Your task to perform on an android device: When is my next appointment? Image 0: 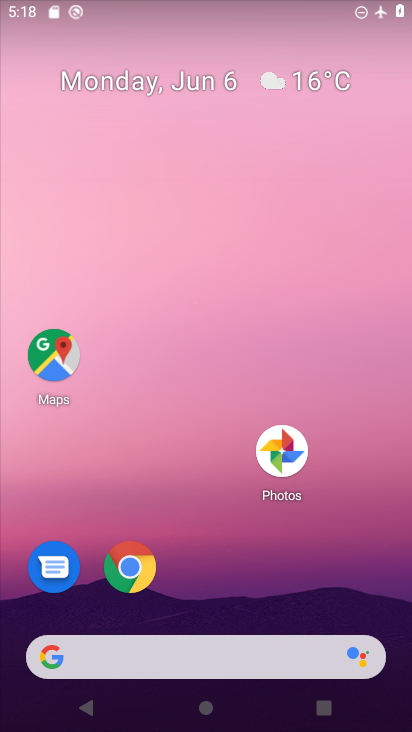
Step 0: click (224, 104)
Your task to perform on an android device: When is my next appointment? Image 1: 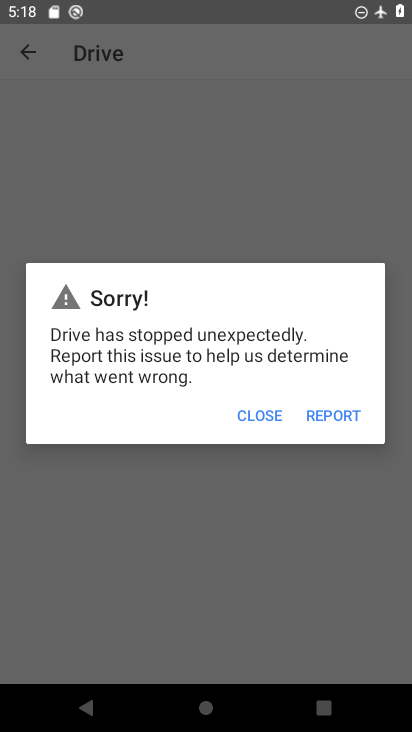
Step 1: click (239, 405)
Your task to perform on an android device: When is my next appointment? Image 2: 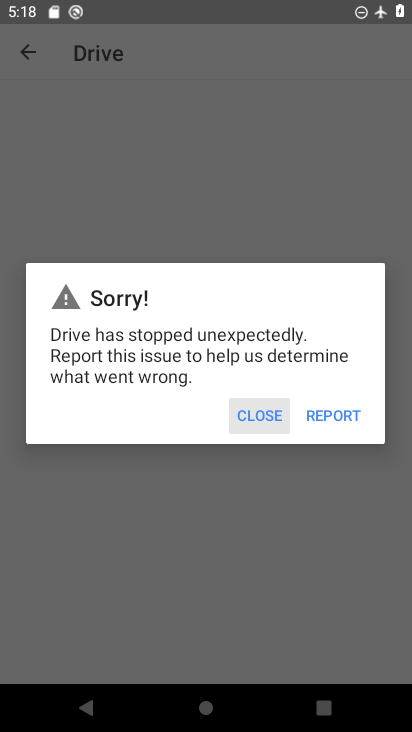
Step 2: click (240, 405)
Your task to perform on an android device: When is my next appointment? Image 3: 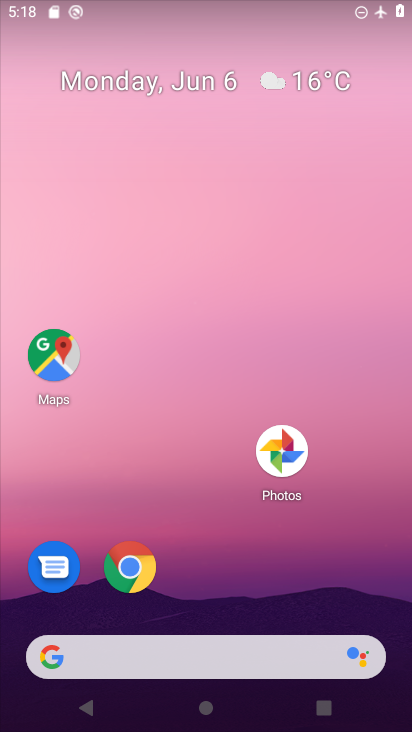
Step 3: drag from (240, 654) to (175, 253)
Your task to perform on an android device: When is my next appointment? Image 4: 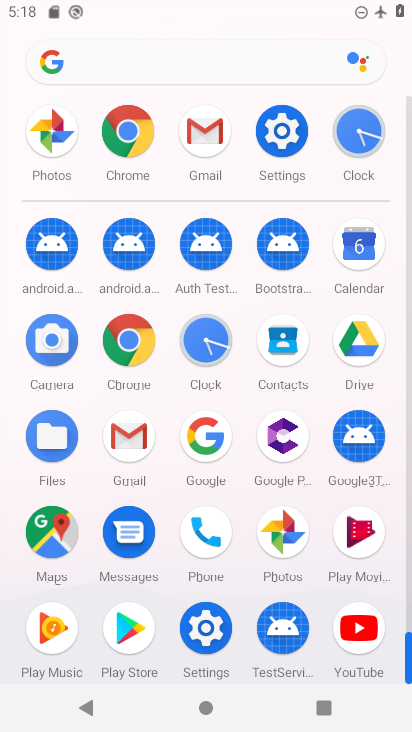
Step 4: click (354, 250)
Your task to perform on an android device: When is my next appointment? Image 5: 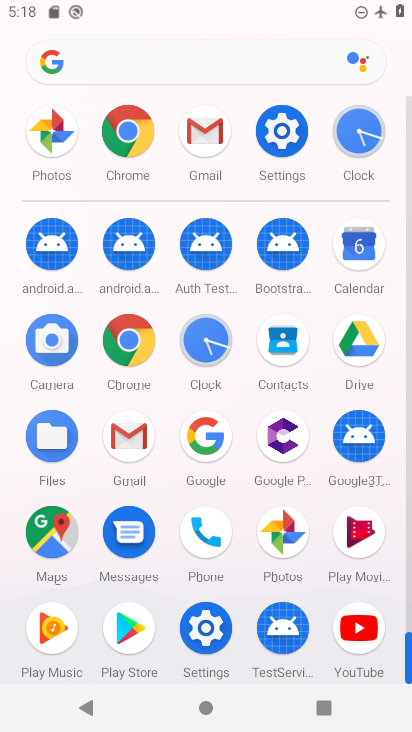
Step 5: click (361, 243)
Your task to perform on an android device: When is my next appointment? Image 6: 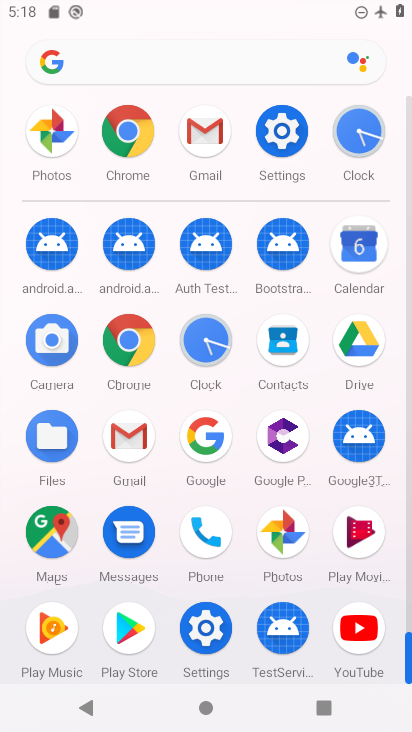
Step 6: click (360, 239)
Your task to perform on an android device: When is my next appointment? Image 7: 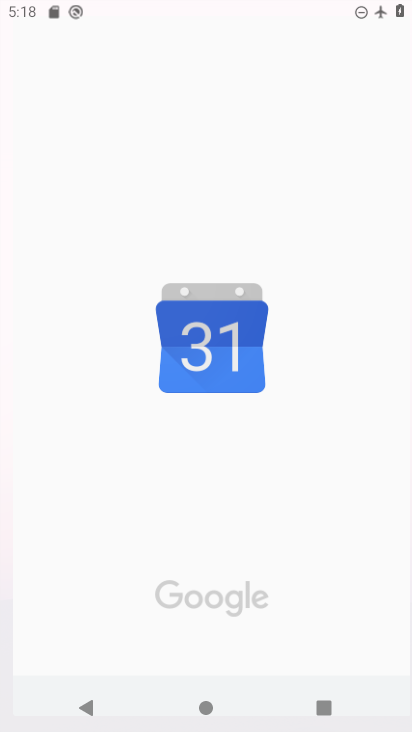
Step 7: click (364, 234)
Your task to perform on an android device: When is my next appointment? Image 8: 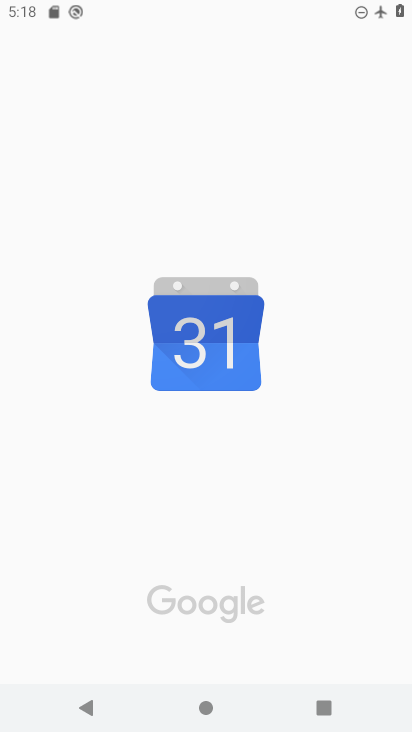
Step 8: click (365, 233)
Your task to perform on an android device: When is my next appointment? Image 9: 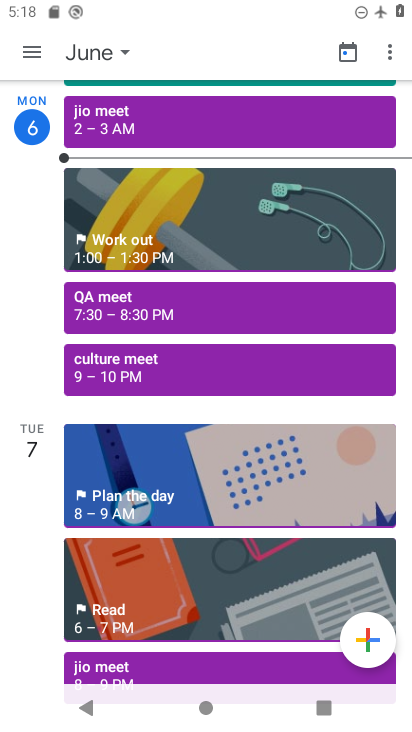
Step 9: task complete